Your task to perform on an android device: Go to Google Image 0: 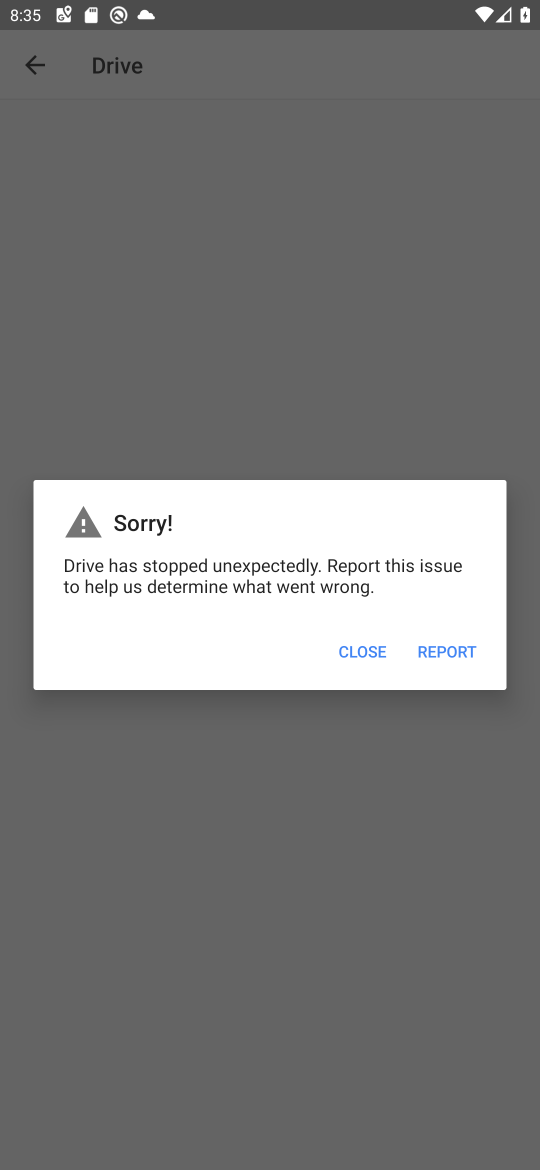
Step 0: press home button
Your task to perform on an android device: Go to Google Image 1: 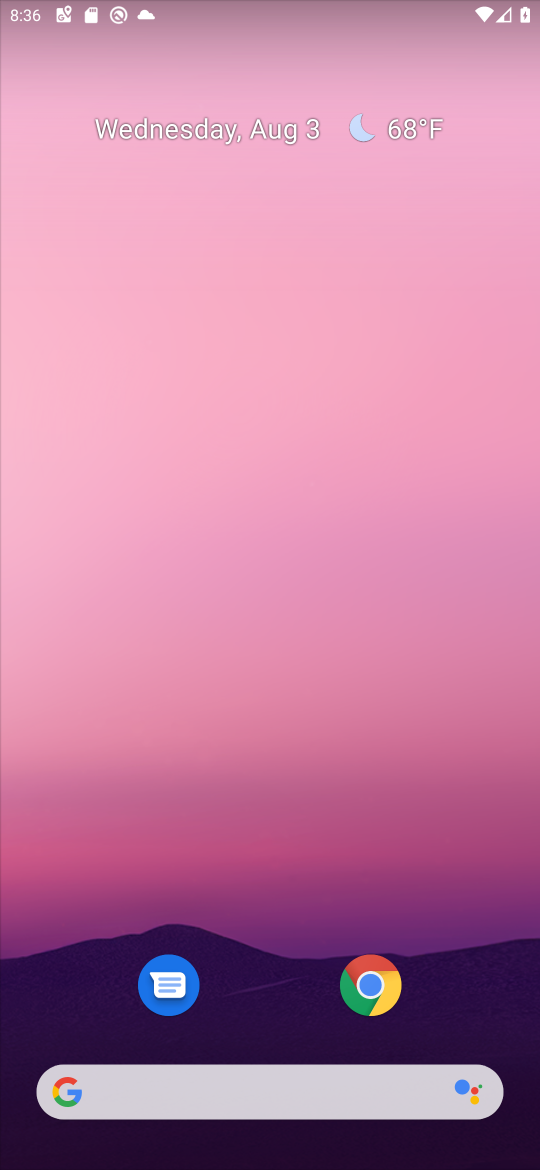
Step 1: drag from (276, 970) to (252, 266)
Your task to perform on an android device: Go to Google Image 2: 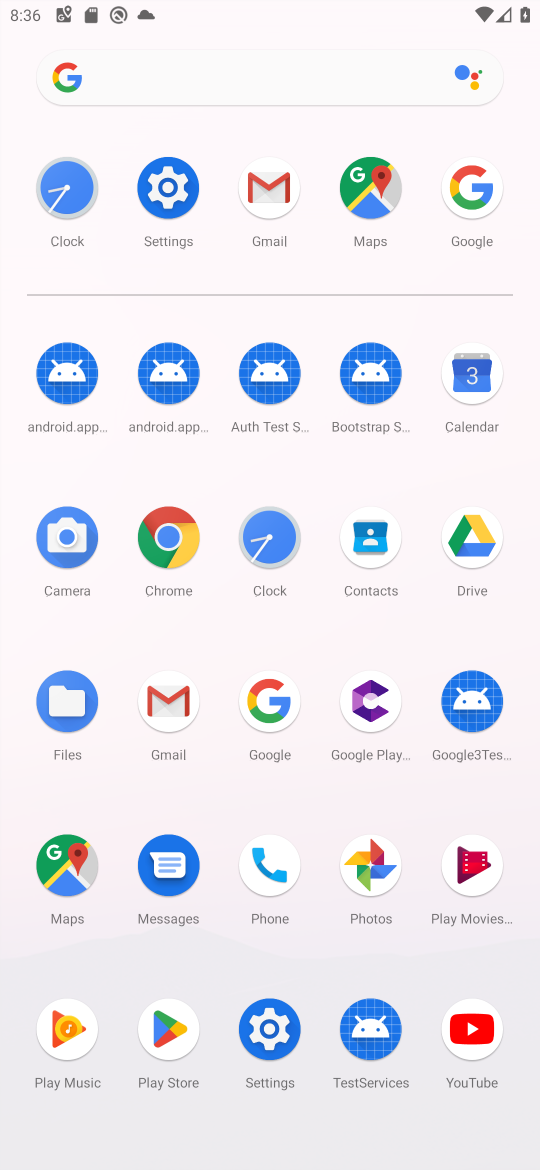
Step 2: click (266, 706)
Your task to perform on an android device: Go to Google Image 3: 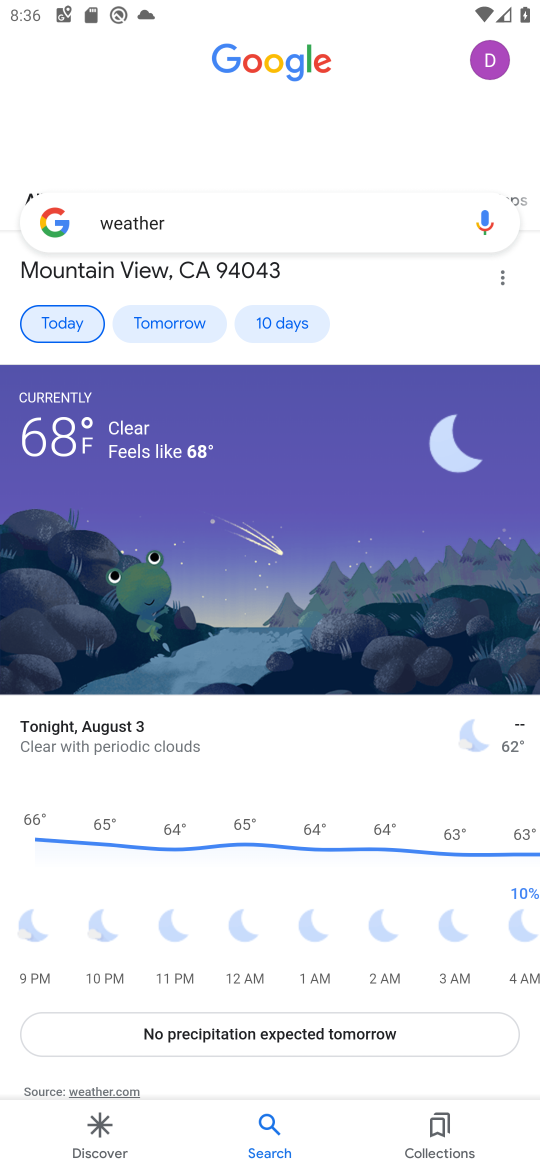
Step 3: task complete